Your task to perform on an android device: Is it going to rain tomorrow? Image 0: 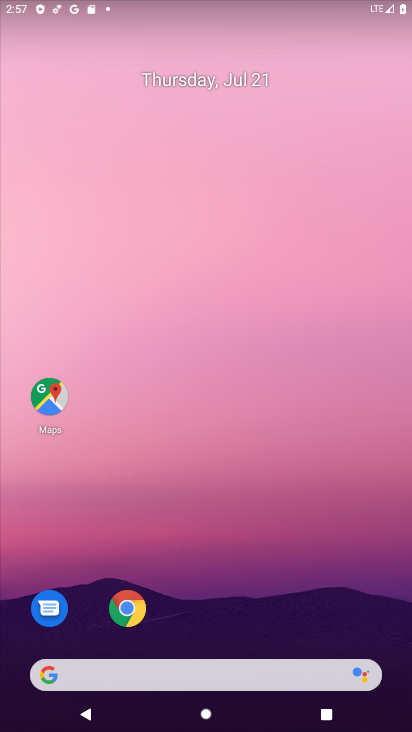
Step 0: click (232, 667)
Your task to perform on an android device: Is it going to rain tomorrow? Image 1: 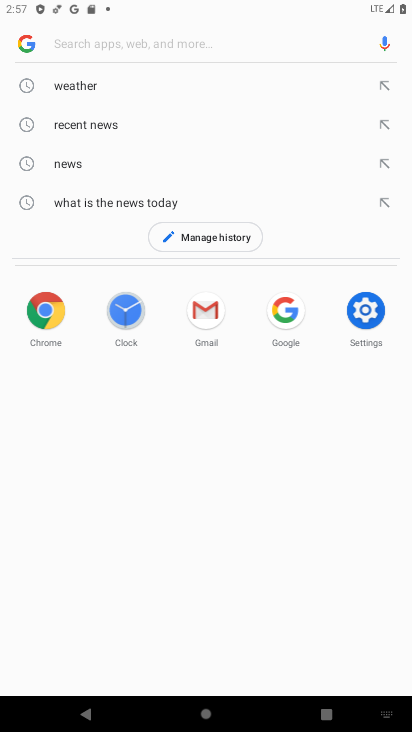
Step 1: click (87, 86)
Your task to perform on an android device: Is it going to rain tomorrow? Image 2: 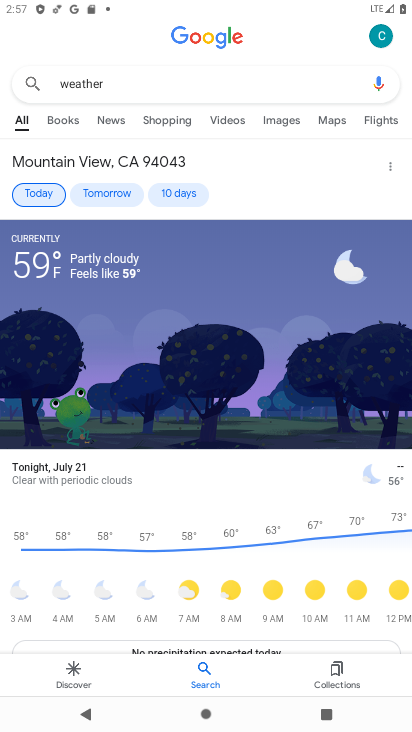
Step 2: click (104, 191)
Your task to perform on an android device: Is it going to rain tomorrow? Image 3: 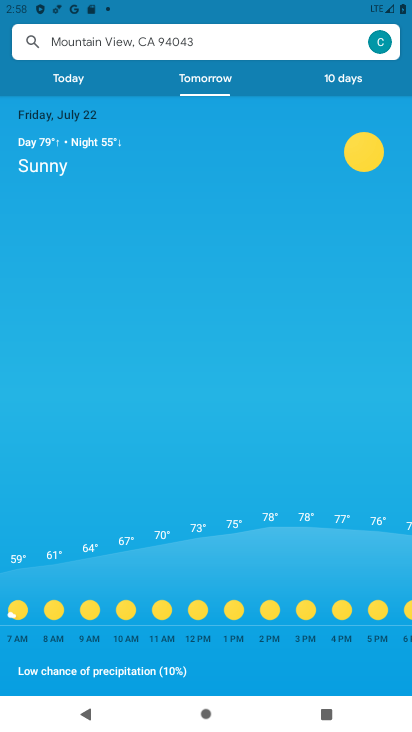
Step 3: task complete